Your task to perform on an android device: Go to wifi settings Image 0: 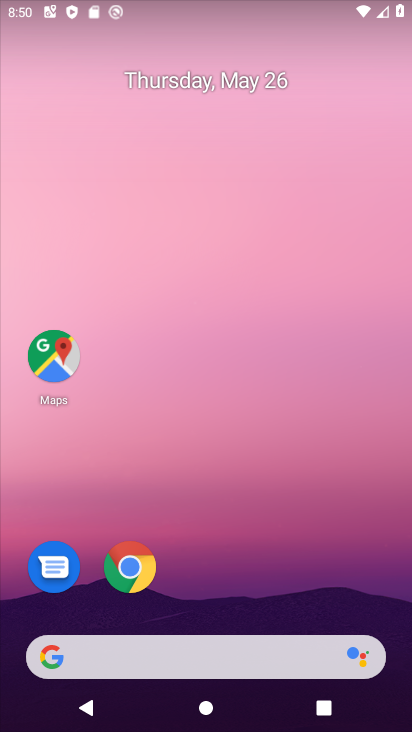
Step 0: drag from (189, 663) to (336, 105)
Your task to perform on an android device: Go to wifi settings Image 1: 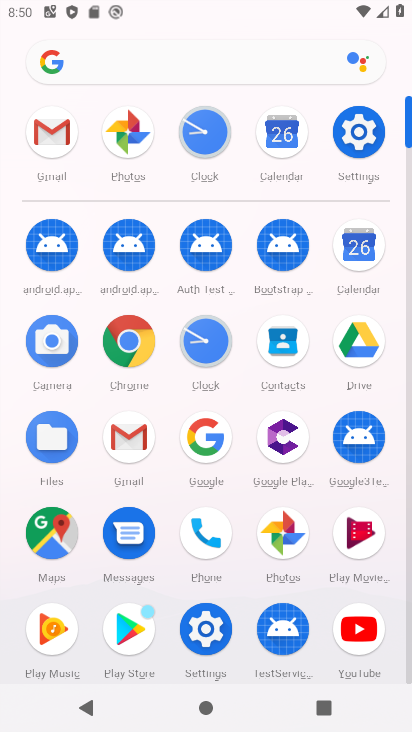
Step 1: click (362, 122)
Your task to perform on an android device: Go to wifi settings Image 2: 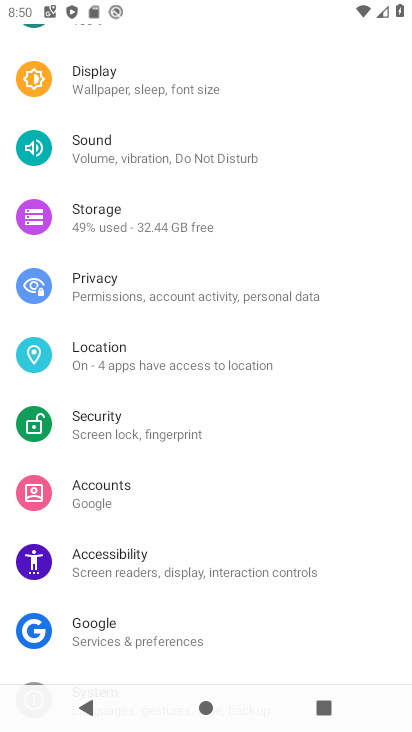
Step 2: drag from (354, 66) to (274, 535)
Your task to perform on an android device: Go to wifi settings Image 3: 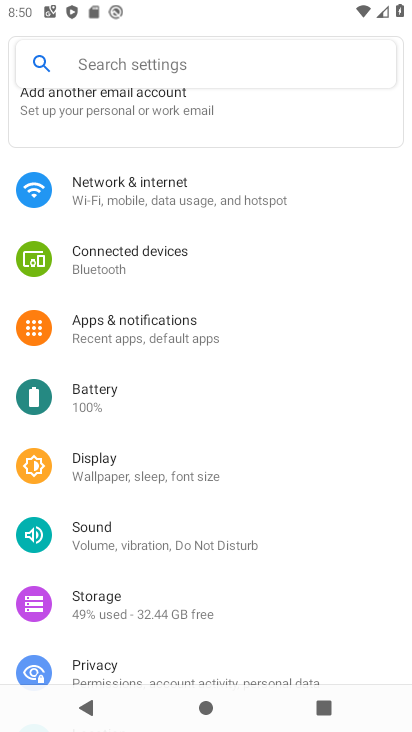
Step 3: click (123, 188)
Your task to perform on an android device: Go to wifi settings Image 4: 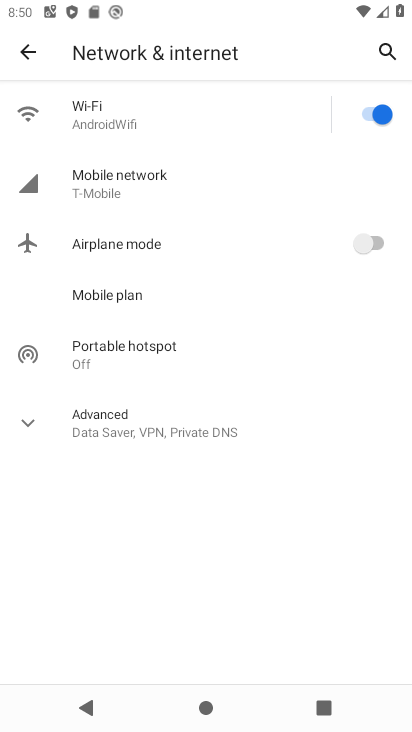
Step 4: click (96, 116)
Your task to perform on an android device: Go to wifi settings Image 5: 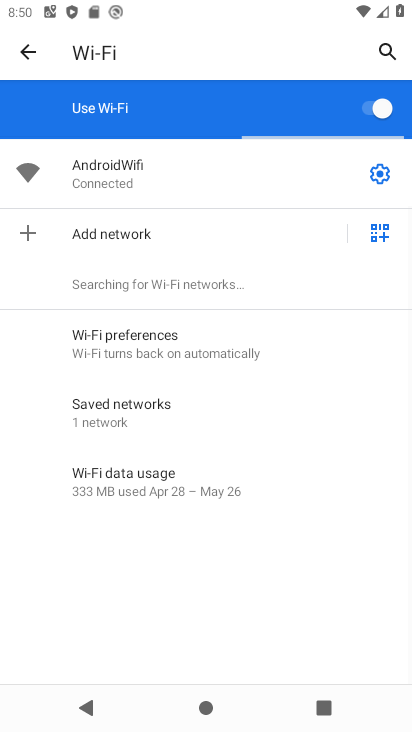
Step 5: task complete